Your task to perform on an android device: change your default location settings in chrome Image 0: 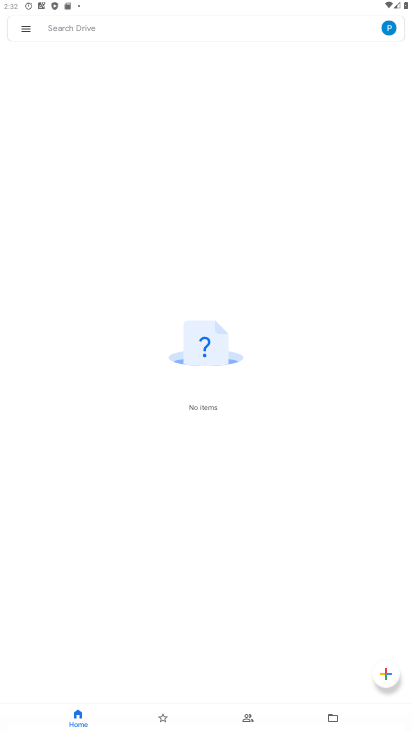
Step 0: press home button
Your task to perform on an android device: change your default location settings in chrome Image 1: 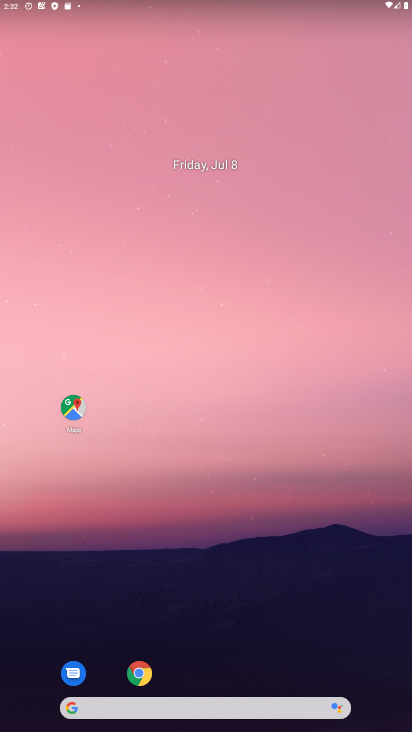
Step 1: click (135, 678)
Your task to perform on an android device: change your default location settings in chrome Image 2: 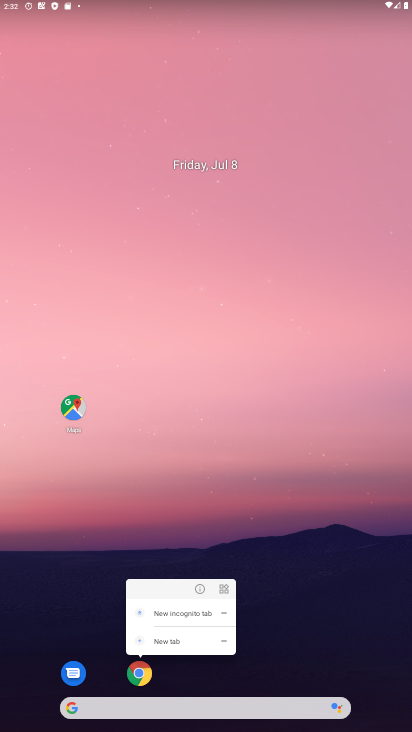
Step 2: click (143, 671)
Your task to perform on an android device: change your default location settings in chrome Image 3: 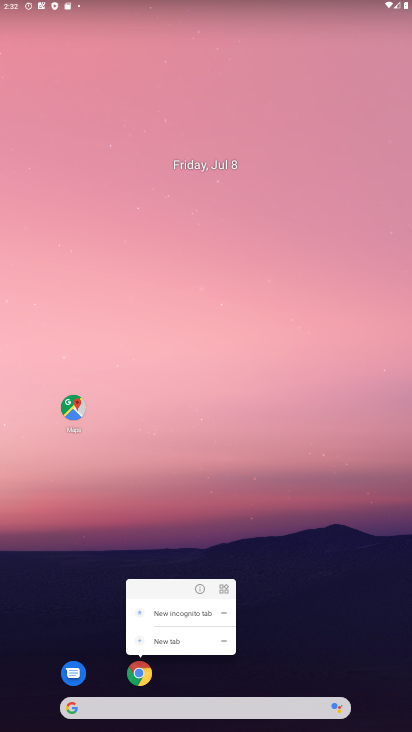
Step 3: click (143, 671)
Your task to perform on an android device: change your default location settings in chrome Image 4: 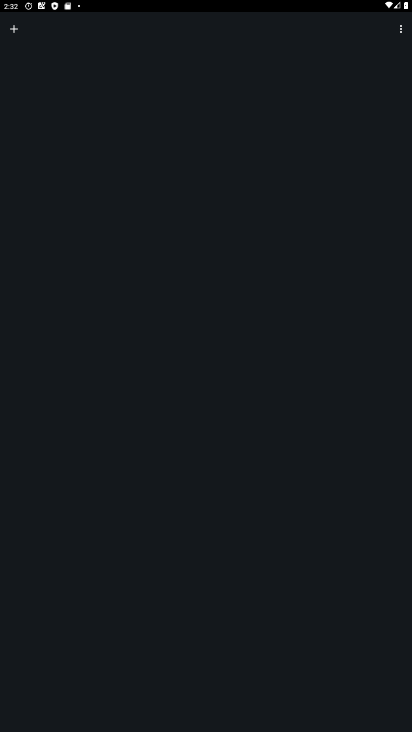
Step 4: click (400, 33)
Your task to perform on an android device: change your default location settings in chrome Image 5: 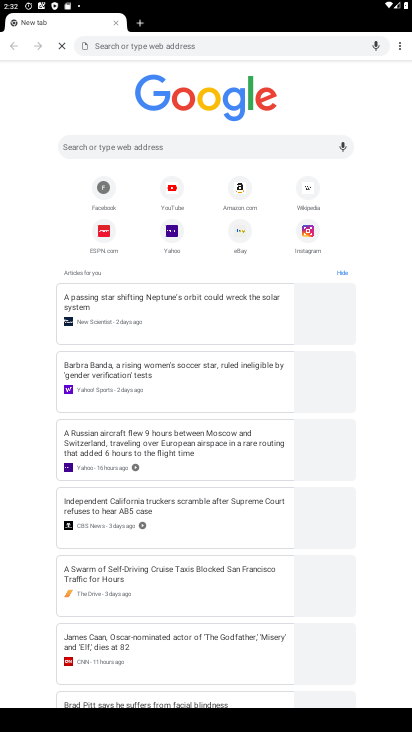
Step 5: click (400, 33)
Your task to perform on an android device: change your default location settings in chrome Image 6: 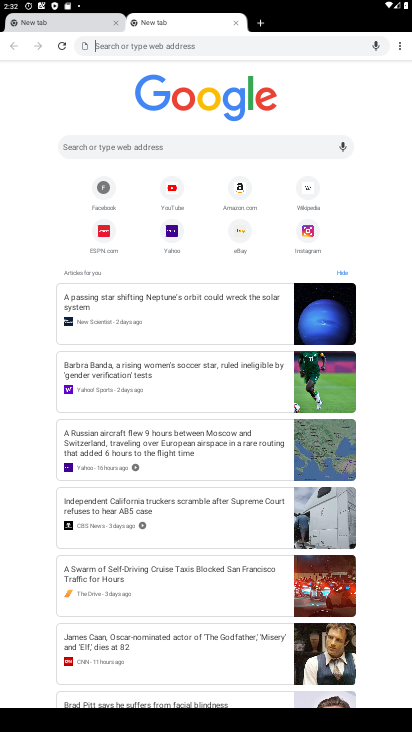
Step 6: click (401, 44)
Your task to perform on an android device: change your default location settings in chrome Image 7: 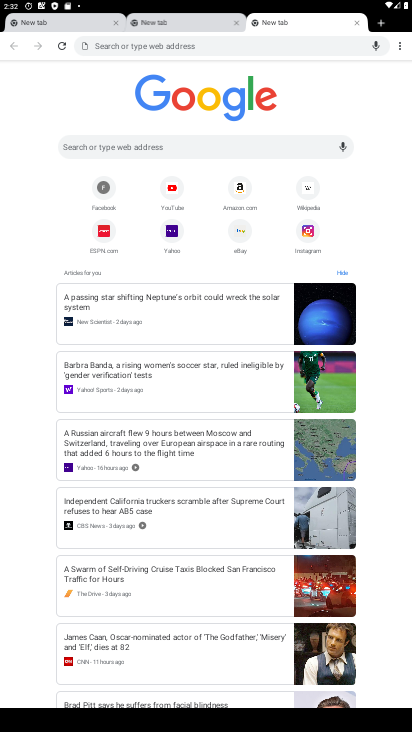
Step 7: click (361, 24)
Your task to perform on an android device: change your default location settings in chrome Image 8: 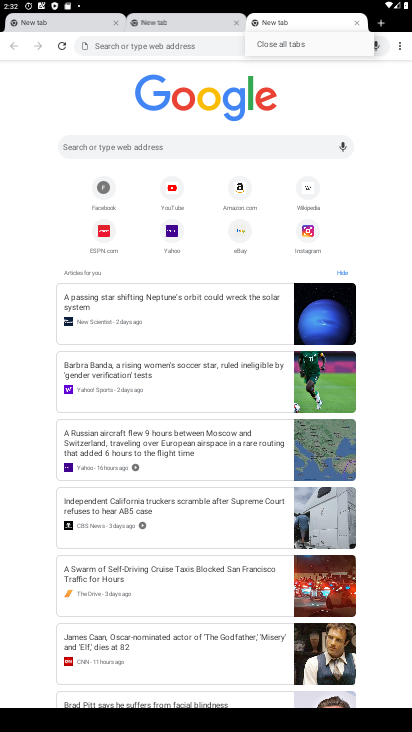
Step 8: click (236, 25)
Your task to perform on an android device: change your default location settings in chrome Image 9: 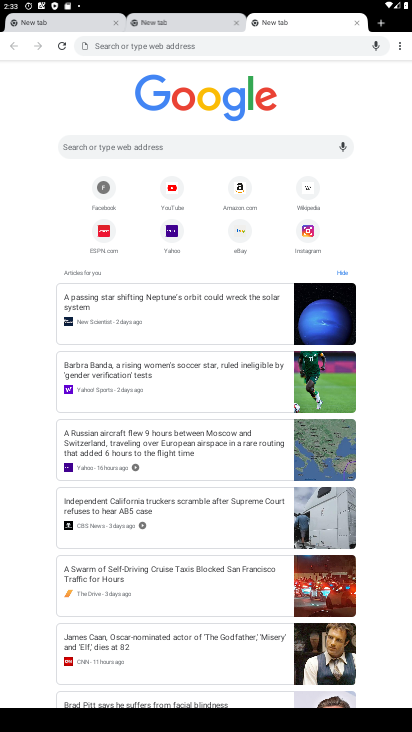
Step 9: click (236, 25)
Your task to perform on an android device: change your default location settings in chrome Image 10: 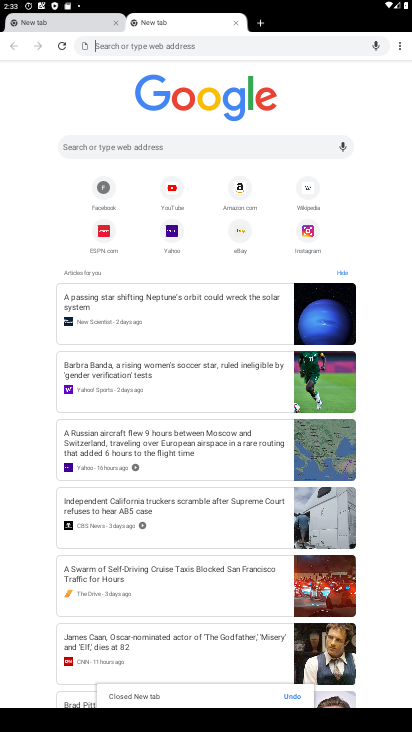
Step 10: click (239, 25)
Your task to perform on an android device: change your default location settings in chrome Image 11: 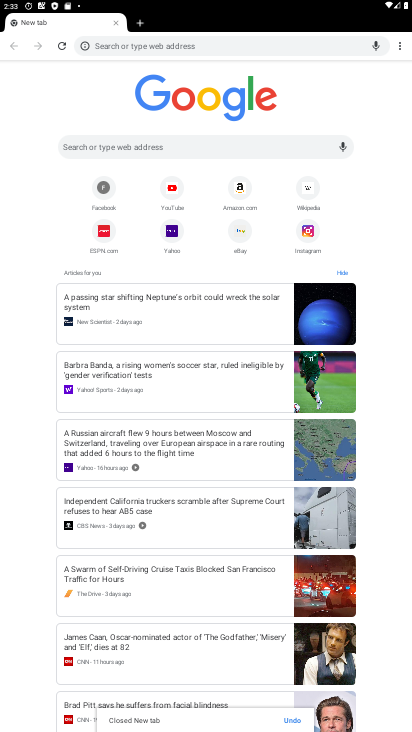
Step 11: click (403, 49)
Your task to perform on an android device: change your default location settings in chrome Image 12: 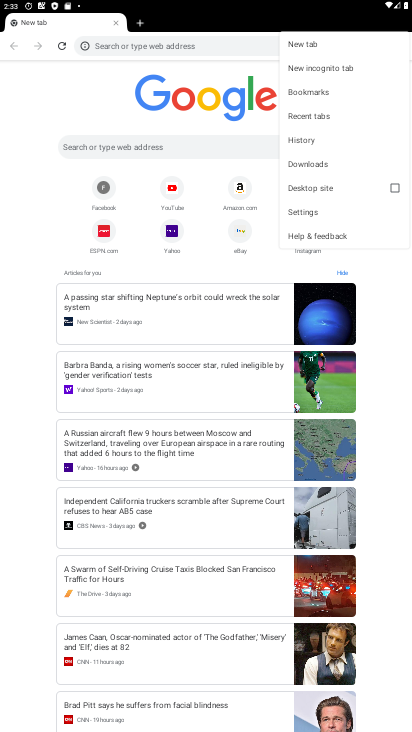
Step 12: click (298, 211)
Your task to perform on an android device: change your default location settings in chrome Image 13: 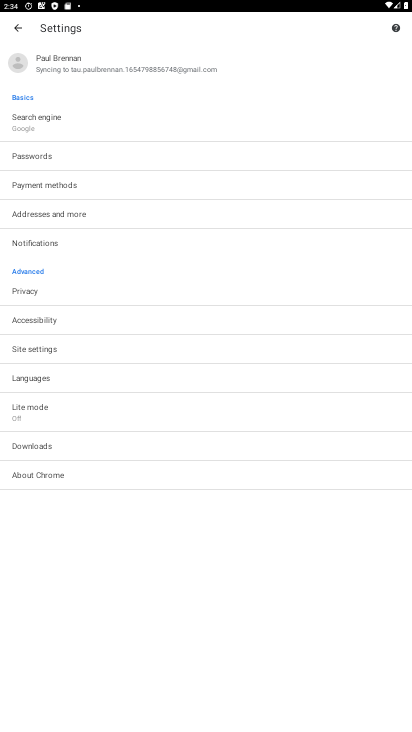
Step 13: click (16, 351)
Your task to perform on an android device: change your default location settings in chrome Image 14: 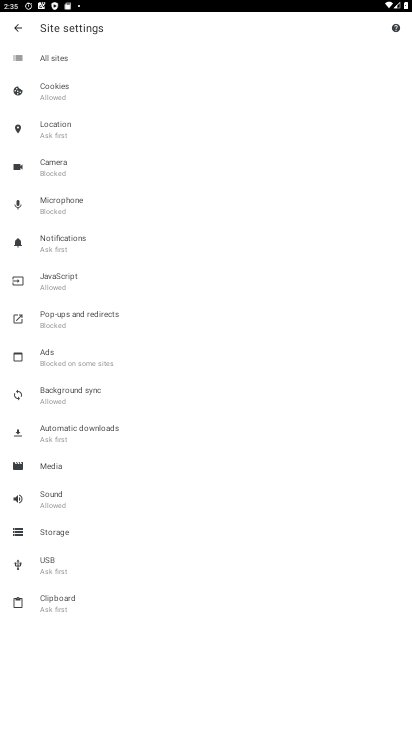
Step 14: click (74, 136)
Your task to perform on an android device: change your default location settings in chrome Image 15: 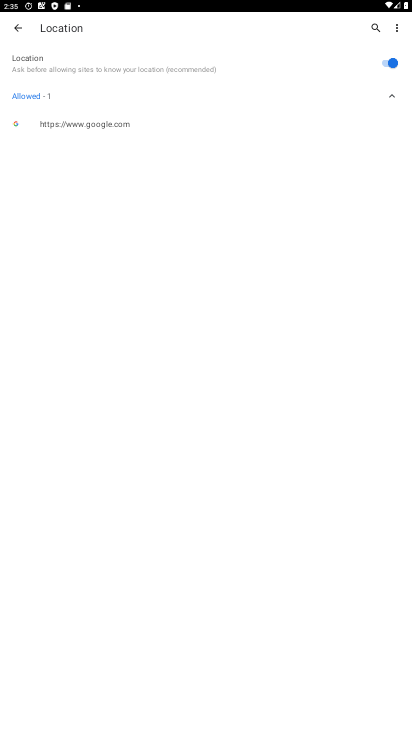
Step 15: click (386, 61)
Your task to perform on an android device: change your default location settings in chrome Image 16: 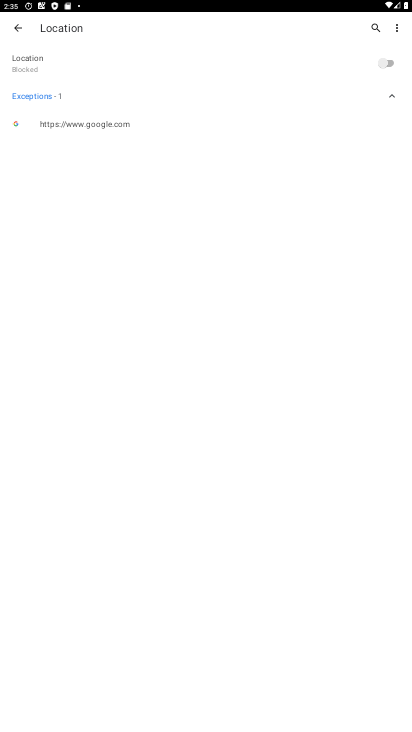
Step 16: task complete